Your task to perform on an android device: open wifi settings Image 0: 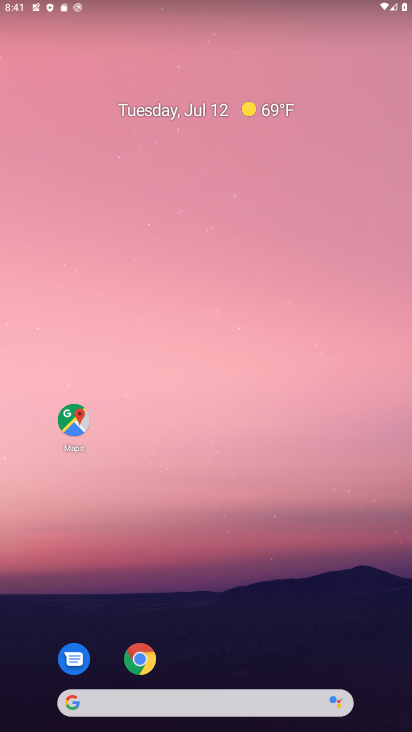
Step 0: drag from (210, 691) to (218, 218)
Your task to perform on an android device: open wifi settings Image 1: 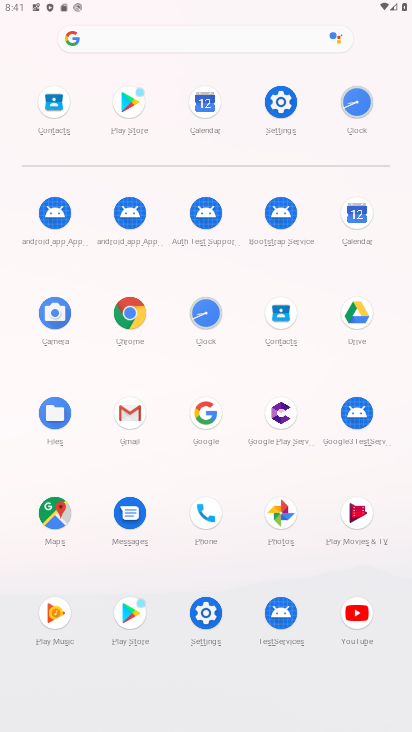
Step 1: click (286, 96)
Your task to perform on an android device: open wifi settings Image 2: 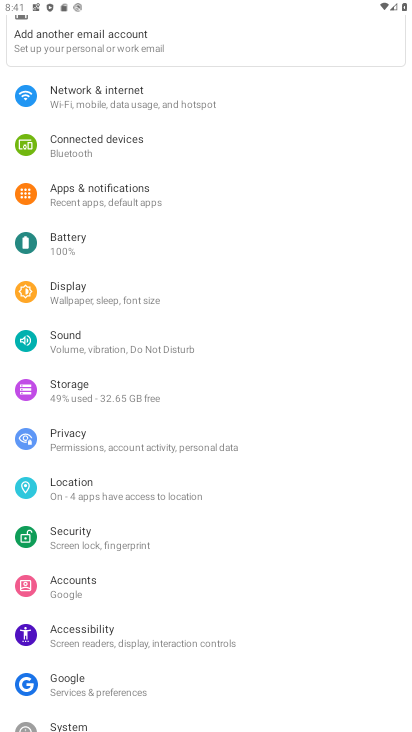
Step 2: click (110, 99)
Your task to perform on an android device: open wifi settings Image 3: 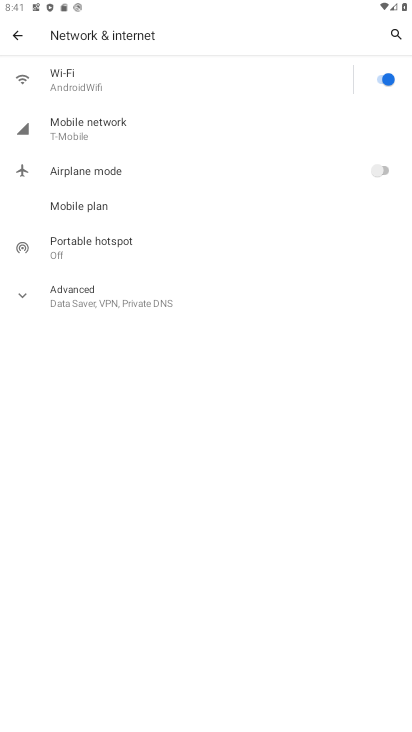
Step 3: click (65, 75)
Your task to perform on an android device: open wifi settings Image 4: 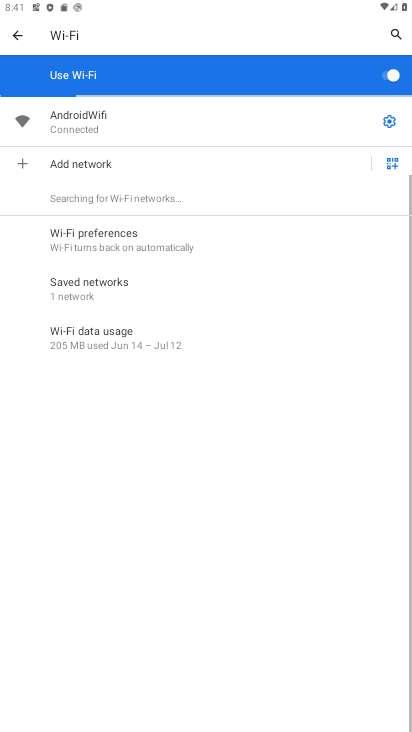
Step 4: task complete